Your task to perform on an android device: toggle airplane mode Image 0: 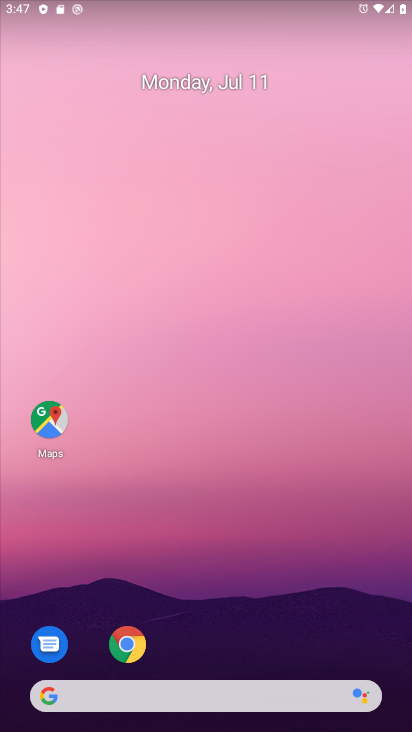
Step 0: drag from (201, 53) to (203, 533)
Your task to perform on an android device: toggle airplane mode Image 1: 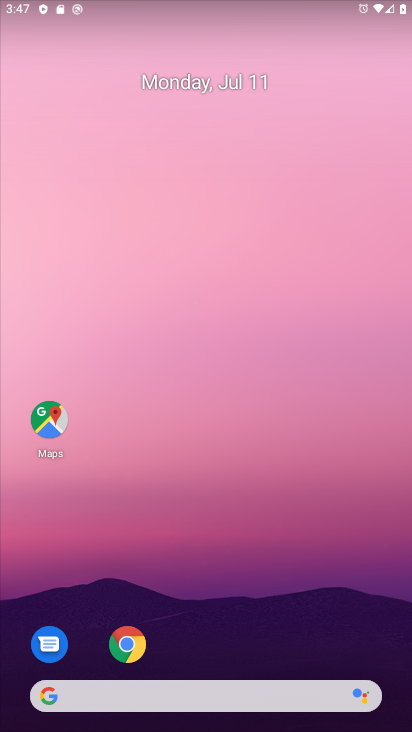
Step 1: drag from (217, 5) to (304, 695)
Your task to perform on an android device: toggle airplane mode Image 2: 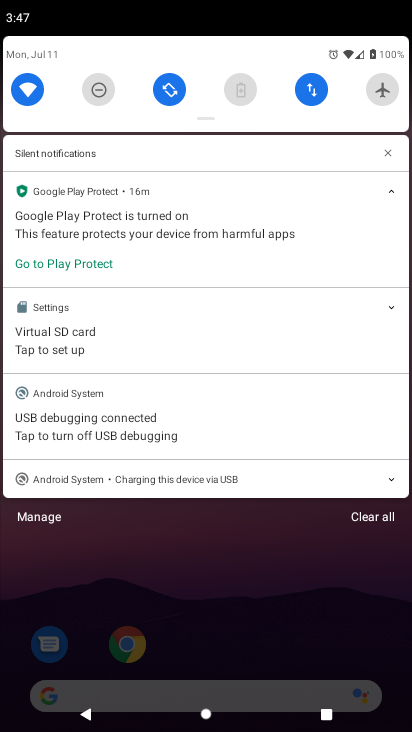
Step 2: drag from (255, 145) to (296, 731)
Your task to perform on an android device: toggle airplane mode Image 3: 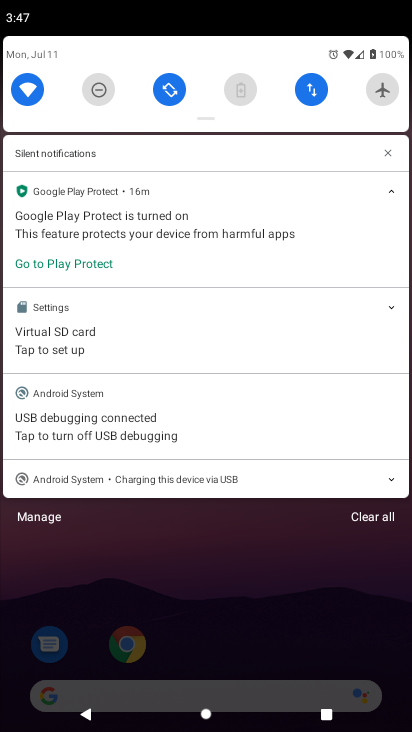
Step 3: click (378, 83)
Your task to perform on an android device: toggle airplane mode Image 4: 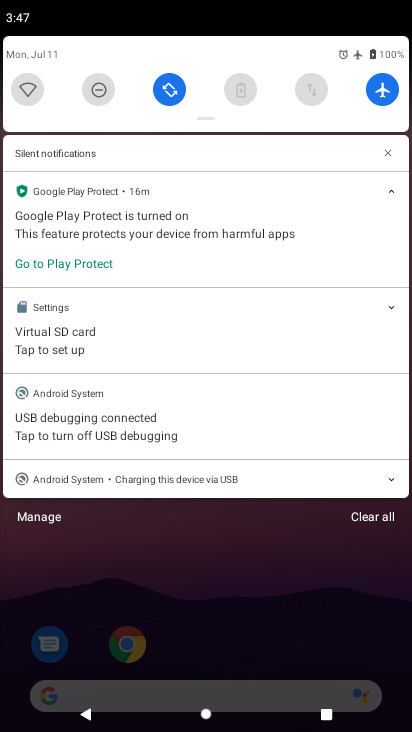
Step 4: task complete